Your task to perform on an android device: change notifications settings Image 0: 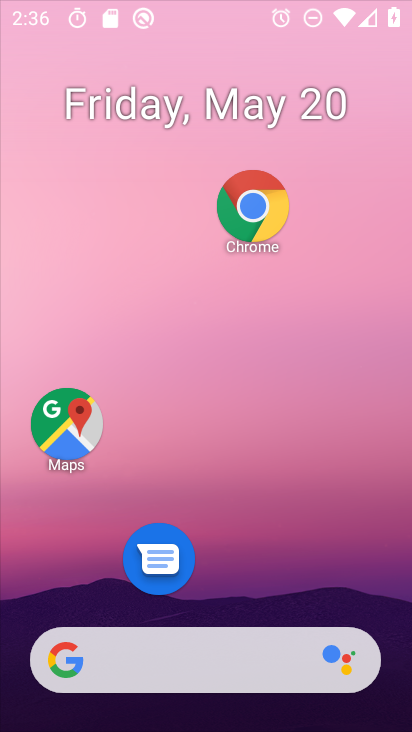
Step 0: drag from (225, 626) to (145, 102)
Your task to perform on an android device: change notifications settings Image 1: 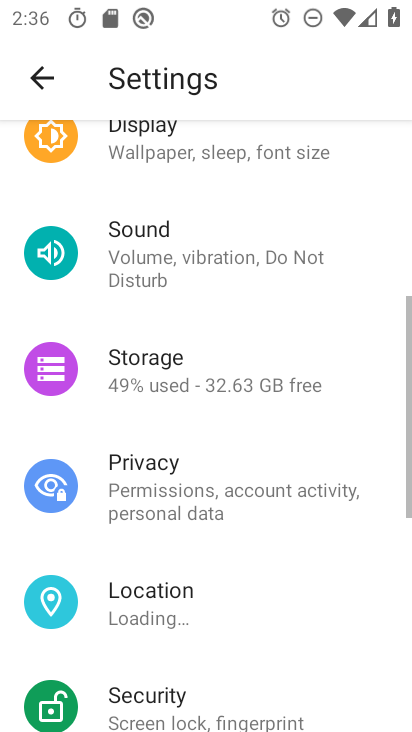
Step 1: drag from (187, 219) to (217, 525)
Your task to perform on an android device: change notifications settings Image 2: 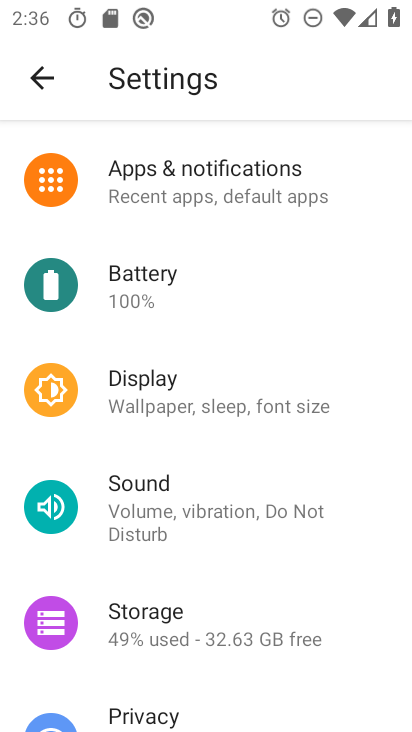
Step 2: click (182, 196)
Your task to perform on an android device: change notifications settings Image 3: 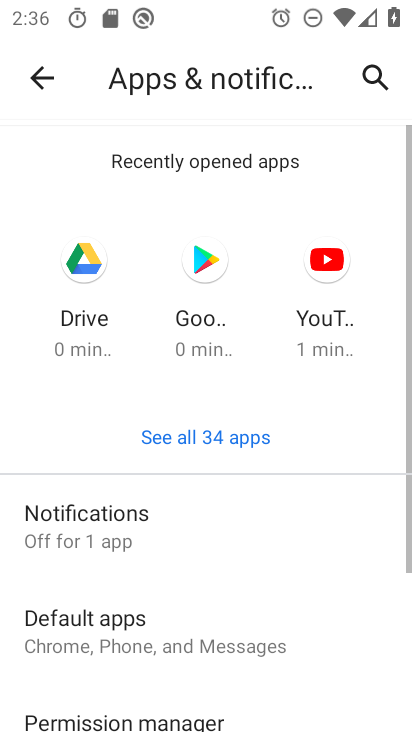
Step 3: click (155, 523)
Your task to perform on an android device: change notifications settings Image 4: 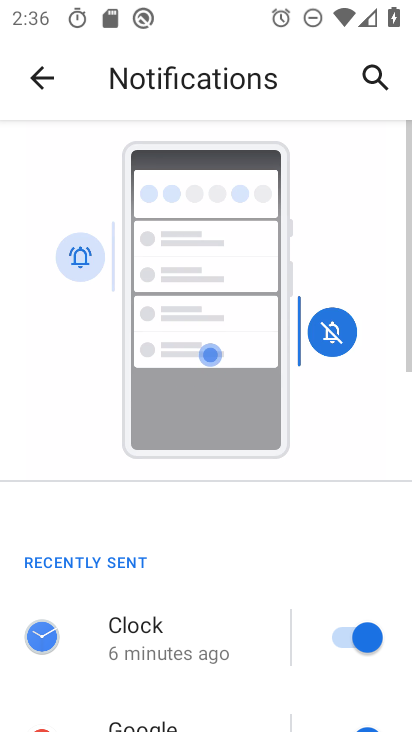
Step 4: drag from (181, 623) to (137, 176)
Your task to perform on an android device: change notifications settings Image 5: 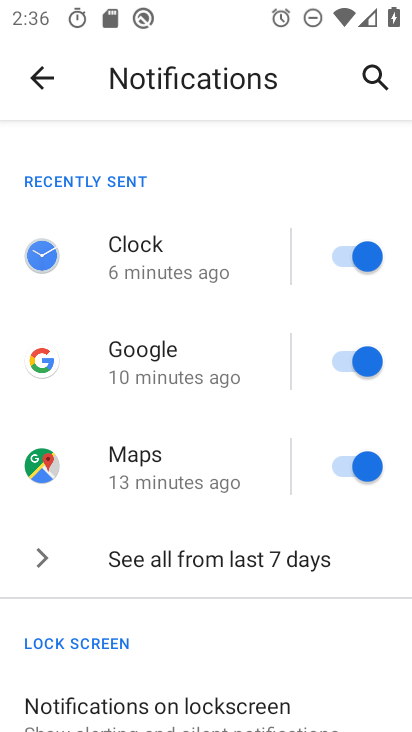
Step 5: click (179, 558)
Your task to perform on an android device: change notifications settings Image 6: 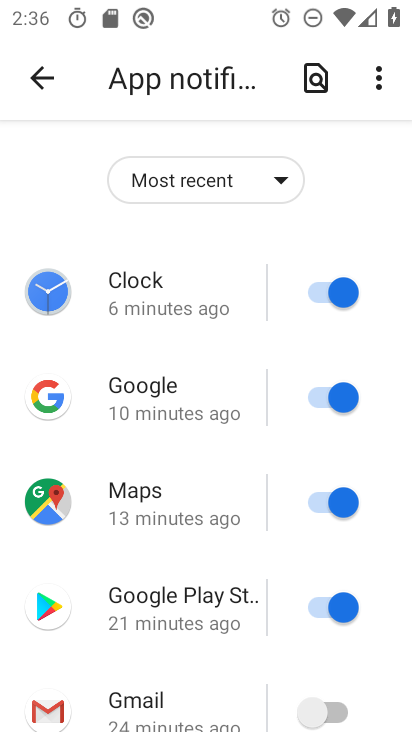
Step 6: click (195, 180)
Your task to perform on an android device: change notifications settings Image 7: 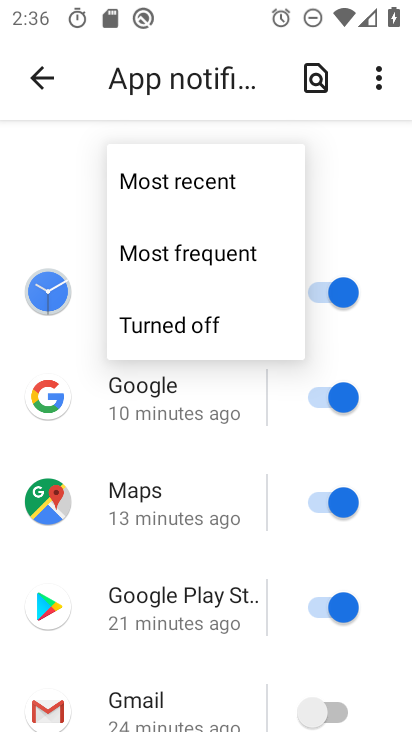
Step 7: click (203, 322)
Your task to perform on an android device: change notifications settings Image 8: 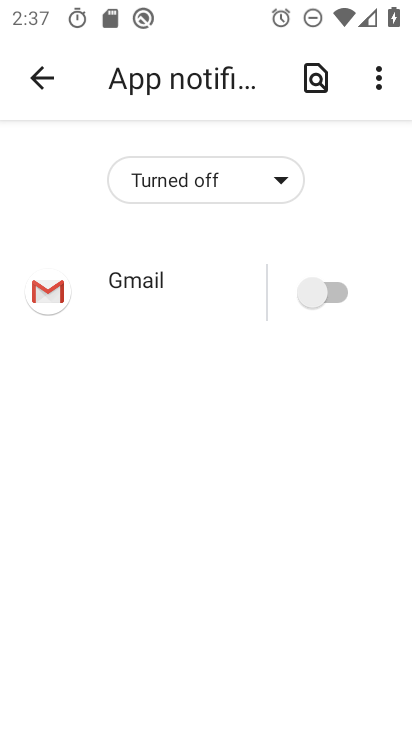
Step 8: task complete